Your task to perform on an android device: Open settings on Google Maps Image 0: 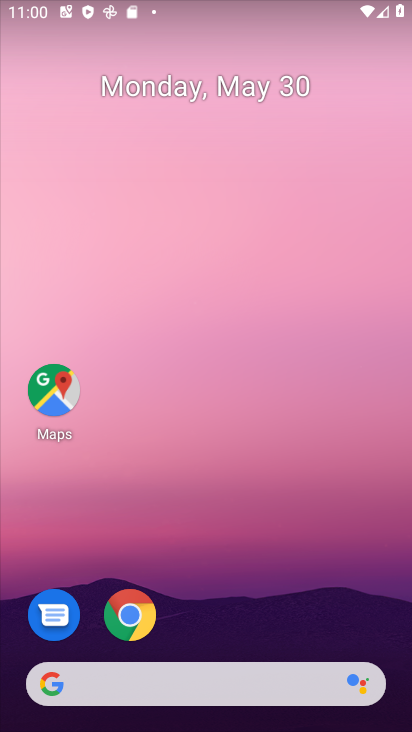
Step 0: click (63, 384)
Your task to perform on an android device: Open settings on Google Maps Image 1: 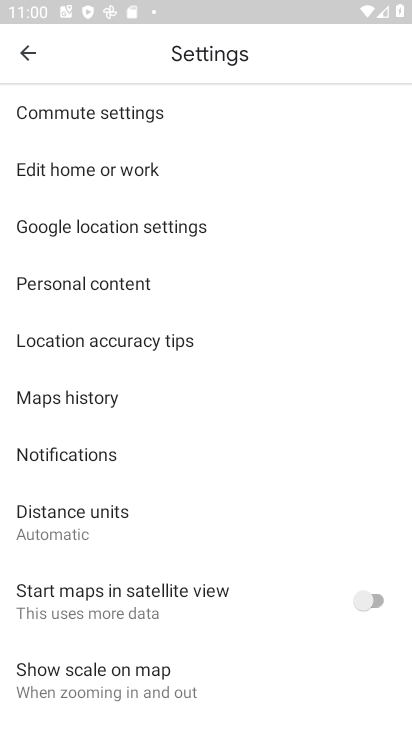
Step 1: task complete